Your task to perform on an android device: Open Wikipedia Image 0: 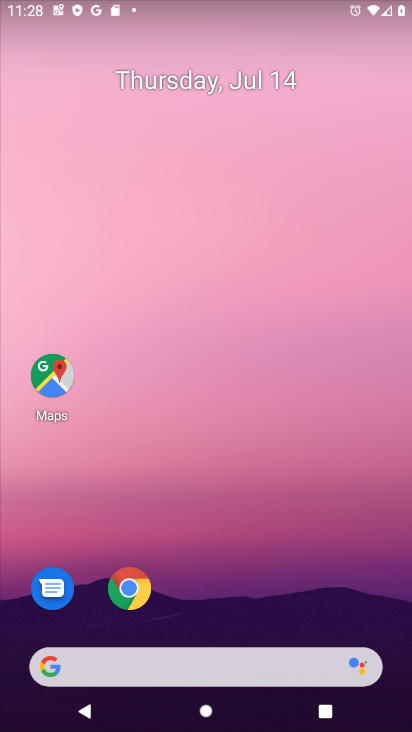
Step 0: click (134, 601)
Your task to perform on an android device: Open Wikipedia Image 1: 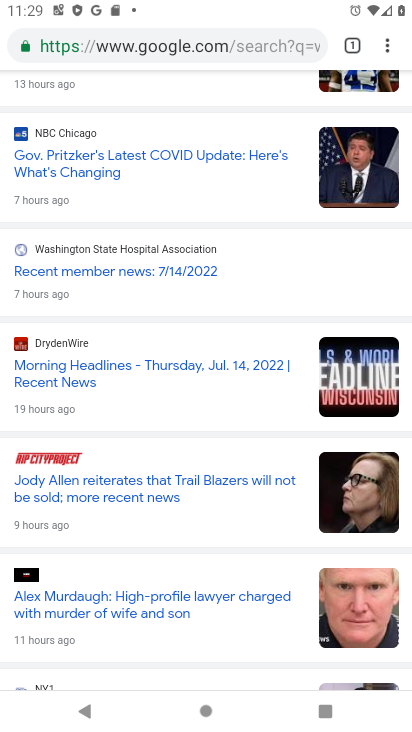
Step 1: click (226, 48)
Your task to perform on an android device: Open Wikipedia Image 2: 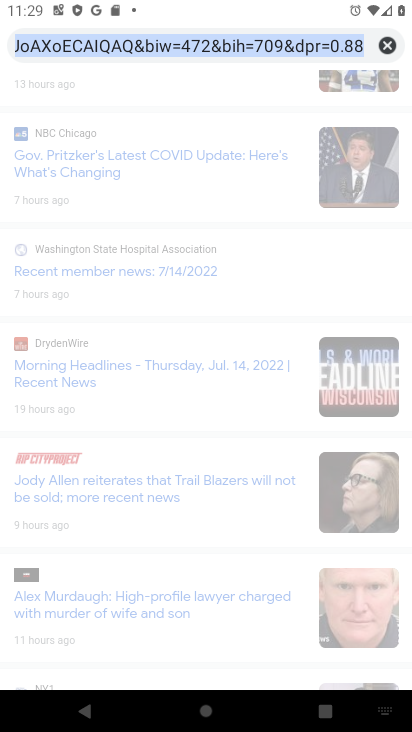
Step 2: type "Wikipedia"
Your task to perform on an android device: Open Wikipedia Image 3: 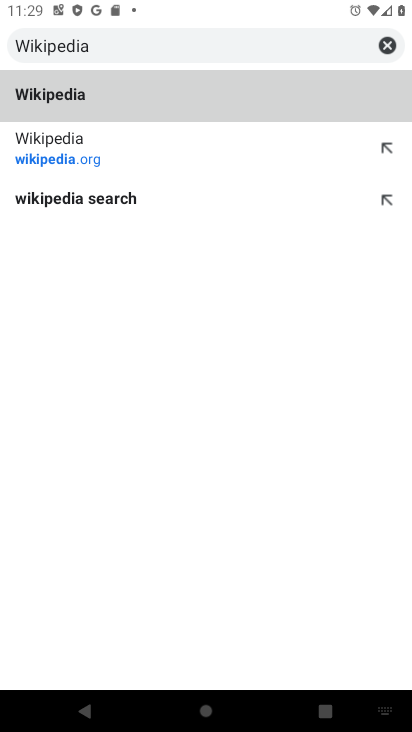
Step 3: click (108, 150)
Your task to perform on an android device: Open Wikipedia Image 4: 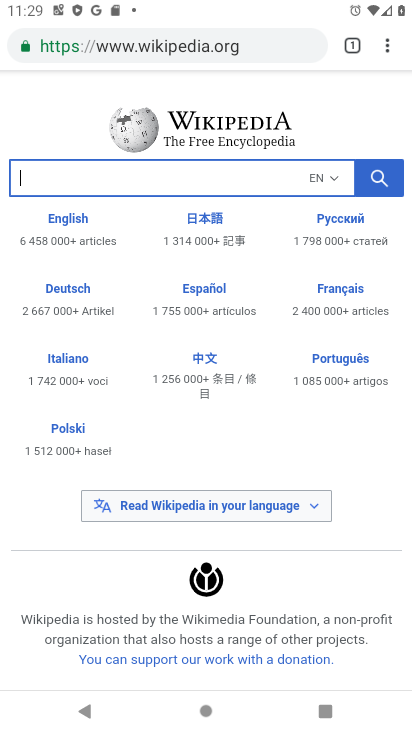
Step 4: task complete